Your task to perform on an android device: Open Maps and search for coffee Image 0: 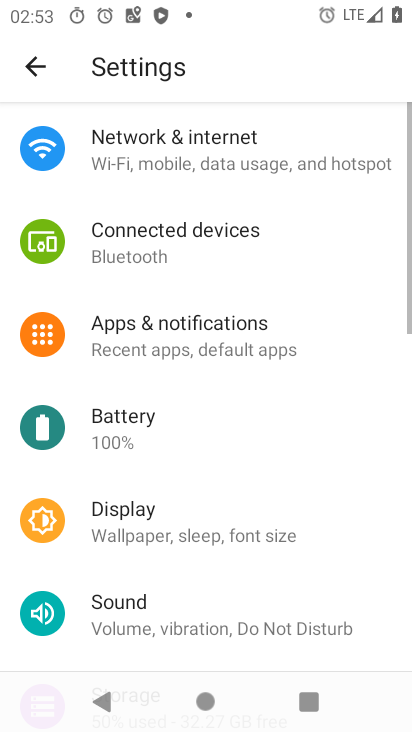
Step 0: press home button
Your task to perform on an android device: Open Maps and search for coffee Image 1: 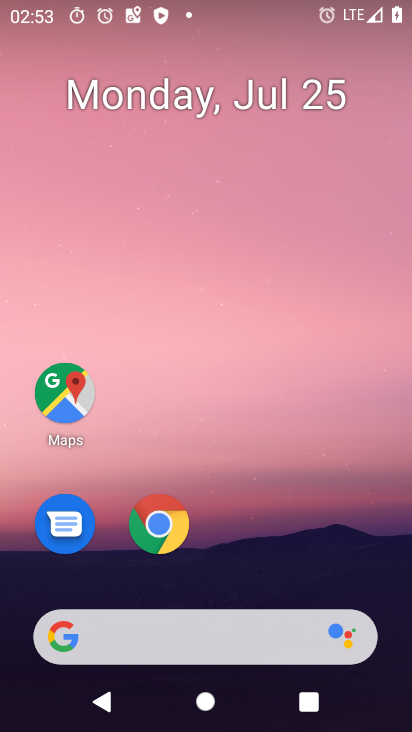
Step 1: drag from (302, 581) to (312, 123)
Your task to perform on an android device: Open Maps and search for coffee Image 2: 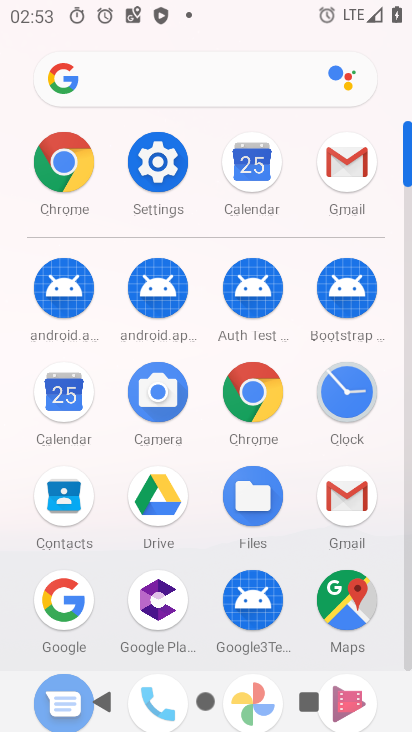
Step 2: click (343, 606)
Your task to perform on an android device: Open Maps and search for coffee Image 3: 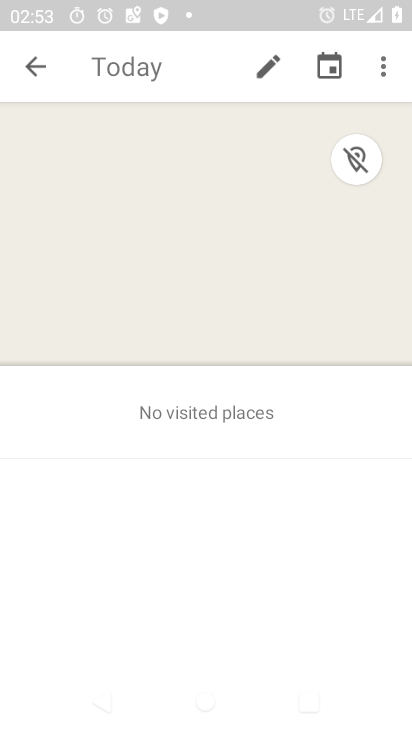
Step 3: click (150, 64)
Your task to perform on an android device: Open Maps and search for coffee Image 4: 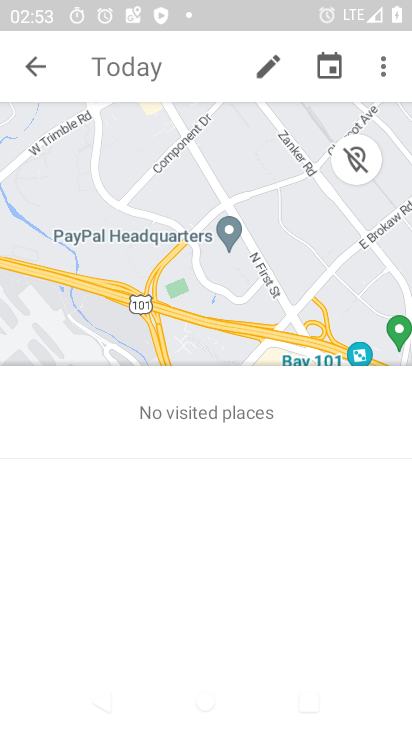
Step 4: click (30, 62)
Your task to perform on an android device: Open Maps and search for coffee Image 5: 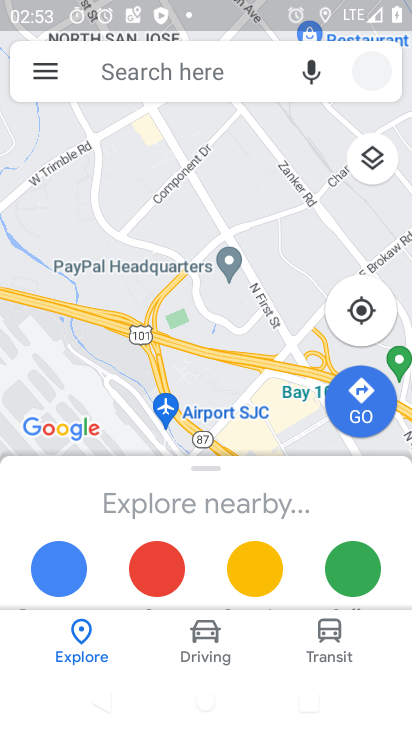
Step 5: click (170, 74)
Your task to perform on an android device: Open Maps and search for coffee Image 6: 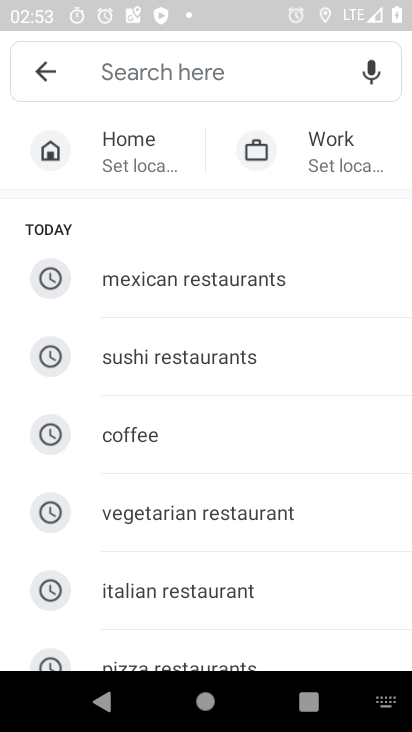
Step 6: click (149, 434)
Your task to perform on an android device: Open Maps and search for coffee Image 7: 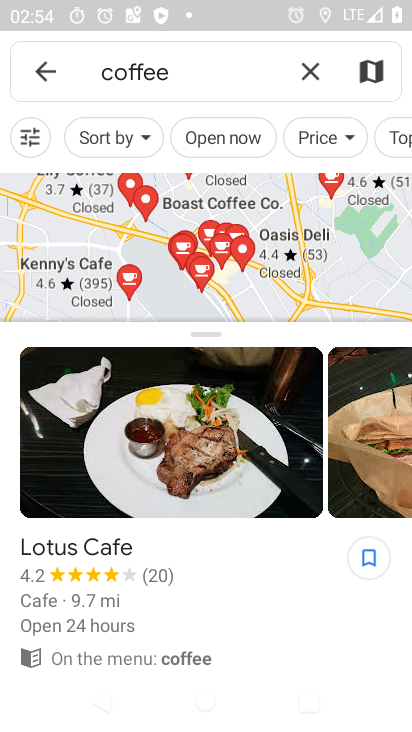
Step 7: task complete